Your task to perform on an android device: Go to privacy settings Image 0: 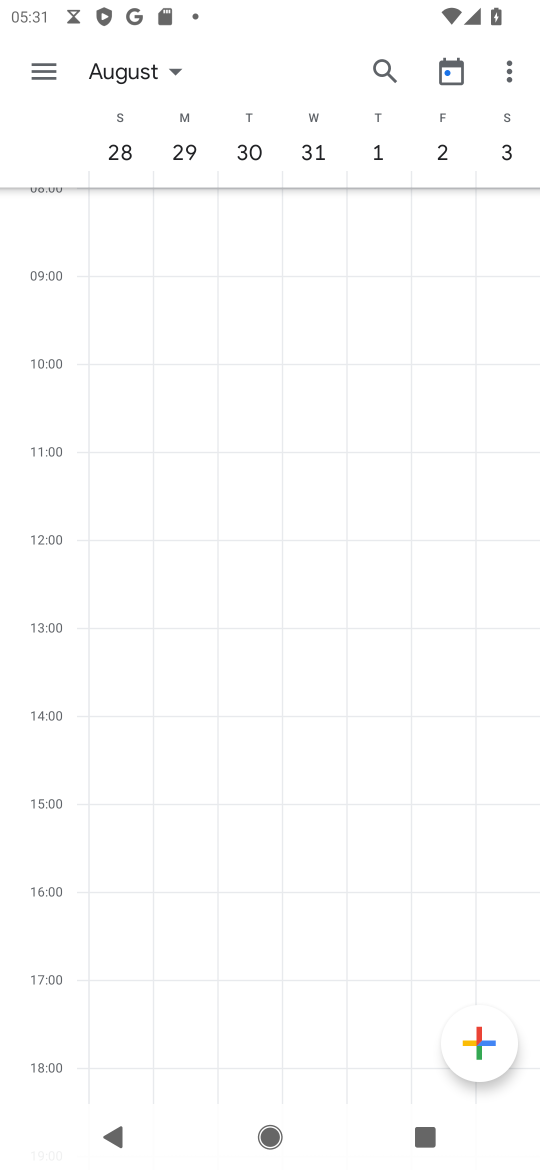
Step 0: press home button
Your task to perform on an android device: Go to privacy settings Image 1: 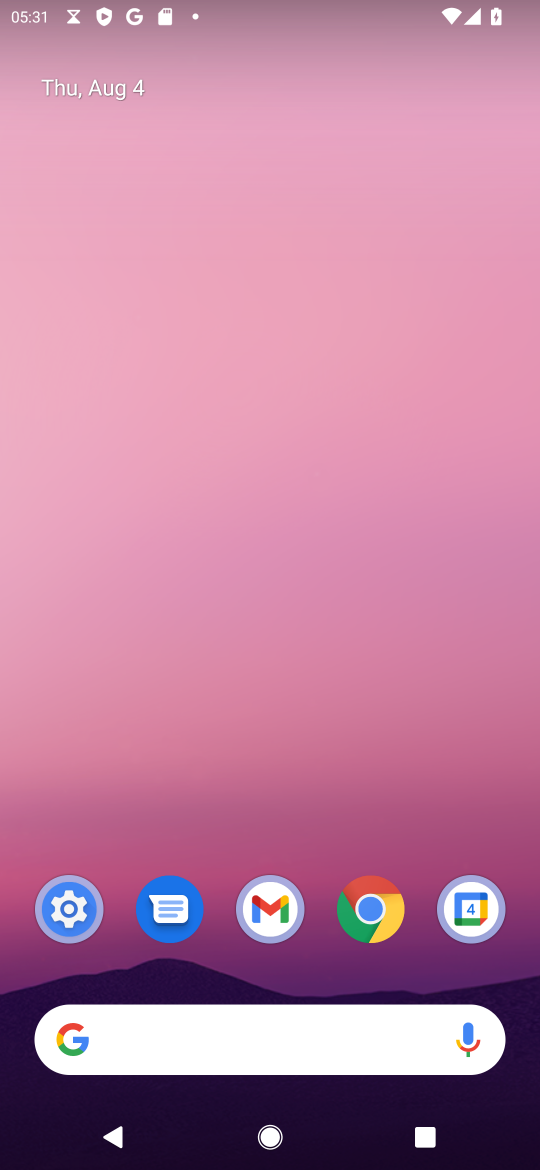
Step 1: click (53, 909)
Your task to perform on an android device: Go to privacy settings Image 2: 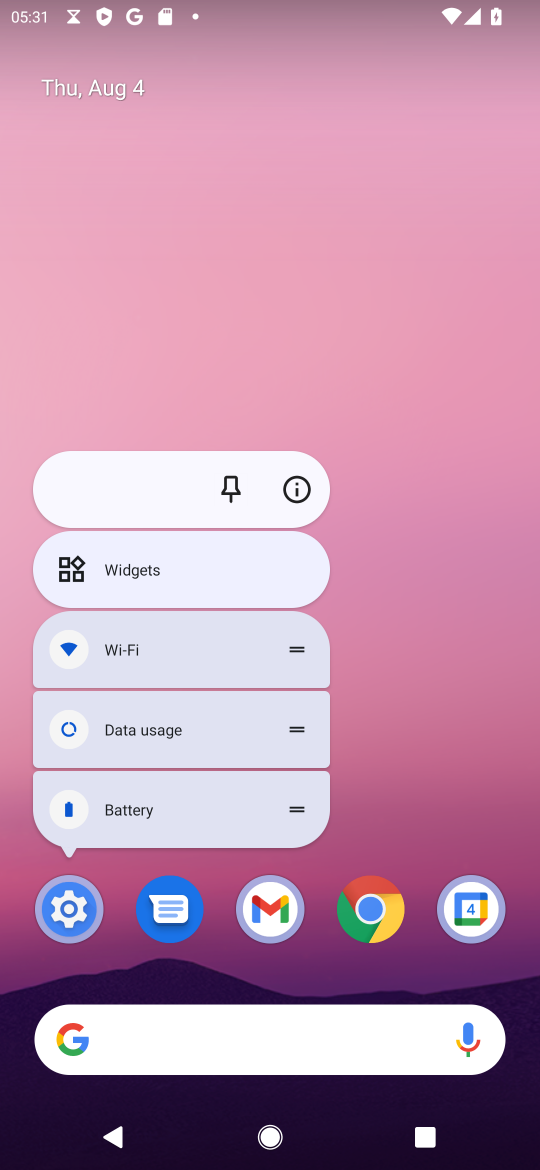
Step 2: click (53, 909)
Your task to perform on an android device: Go to privacy settings Image 3: 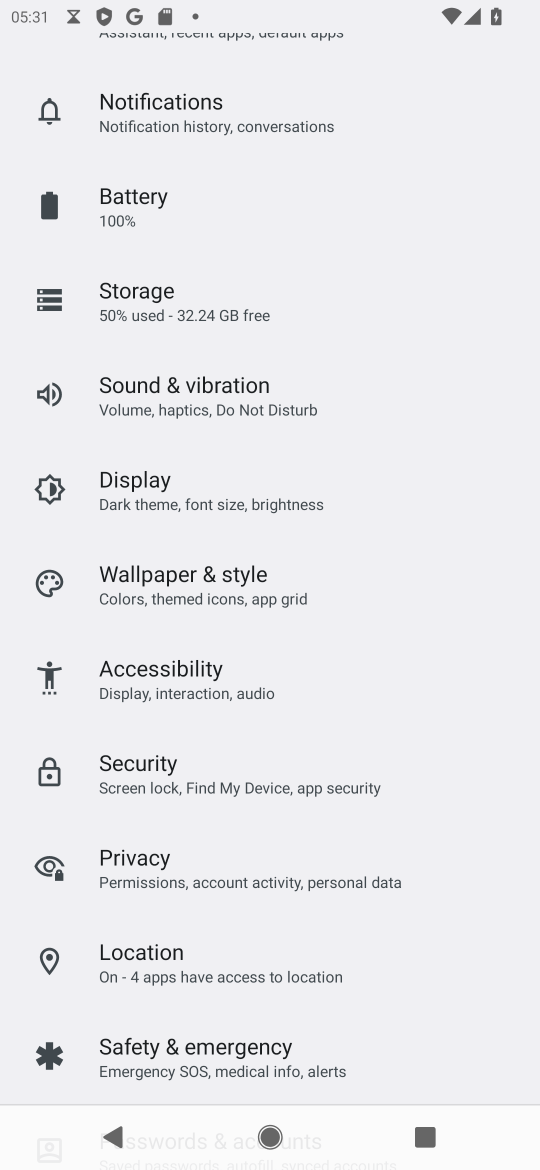
Step 3: click (159, 872)
Your task to perform on an android device: Go to privacy settings Image 4: 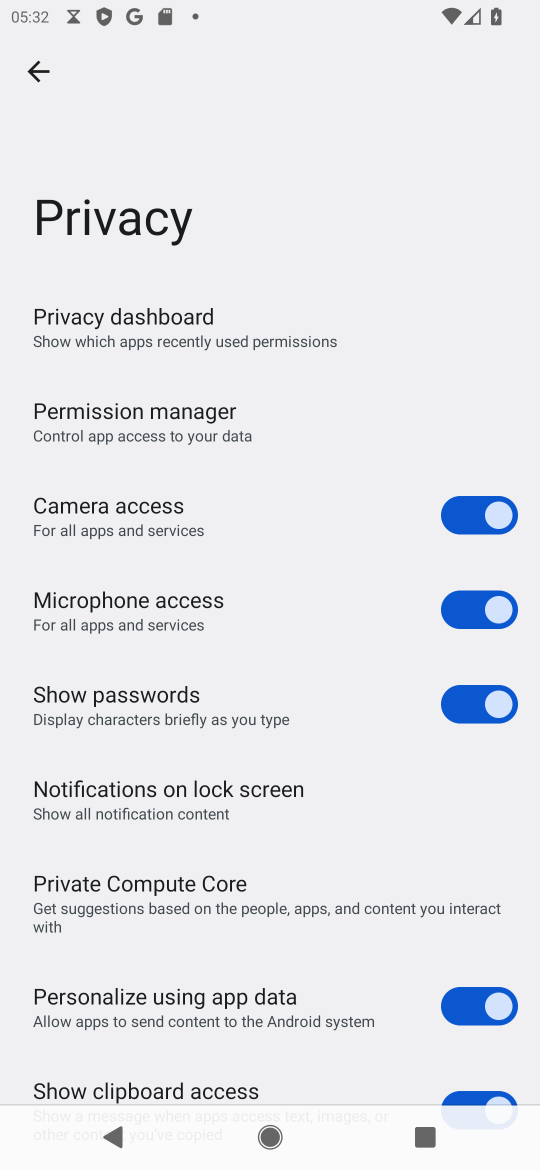
Step 4: task complete